Your task to perform on an android device: Open Chrome and go to the settings page Image 0: 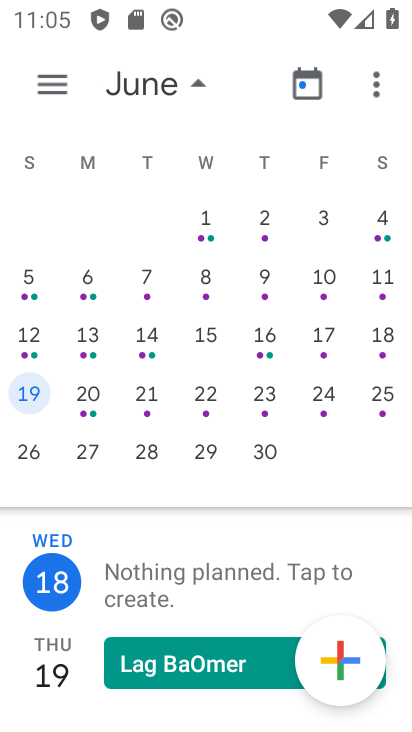
Step 0: press home button
Your task to perform on an android device: Open Chrome and go to the settings page Image 1: 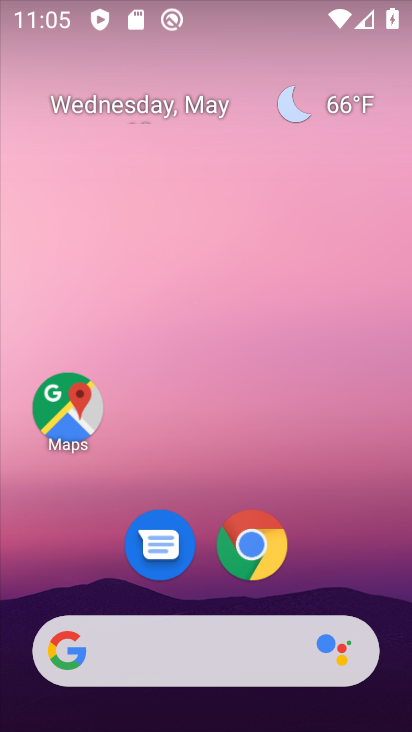
Step 1: click (255, 557)
Your task to perform on an android device: Open Chrome and go to the settings page Image 2: 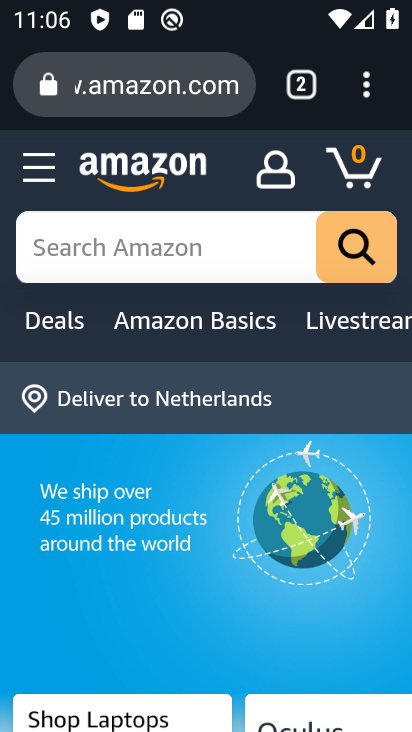
Step 2: click (369, 74)
Your task to perform on an android device: Open Chrome and go to the settings page Image 3: 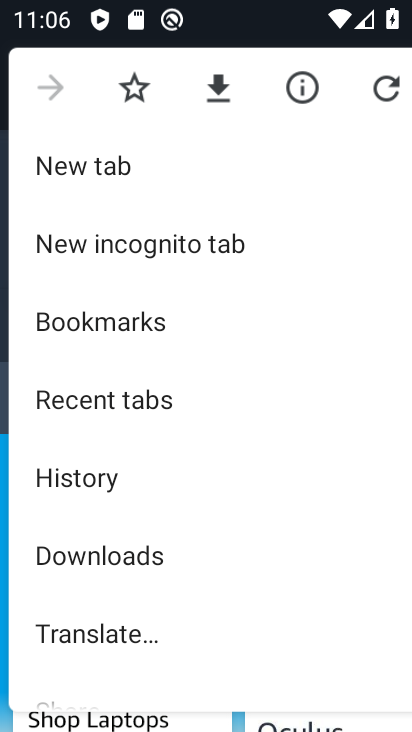
Step 3: drag from (191, 687) to (230, 181)
Your task to perform on an android device: Open Chrome and go to the settings page Image 4: 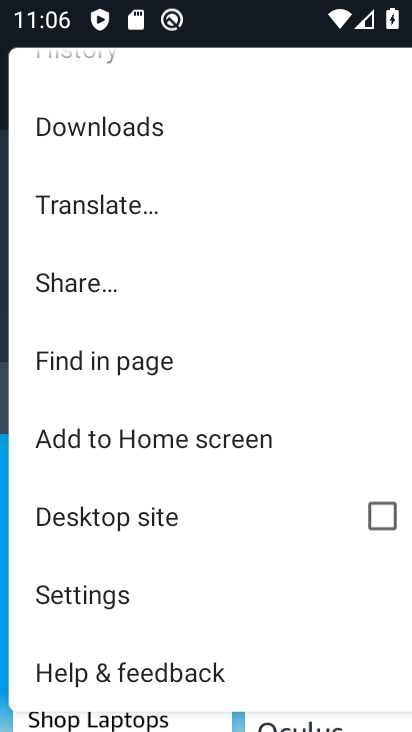
Step 4: click (100, 588)
Your task to perform on an android device: Open Chrome and go to the settings page Image 5: 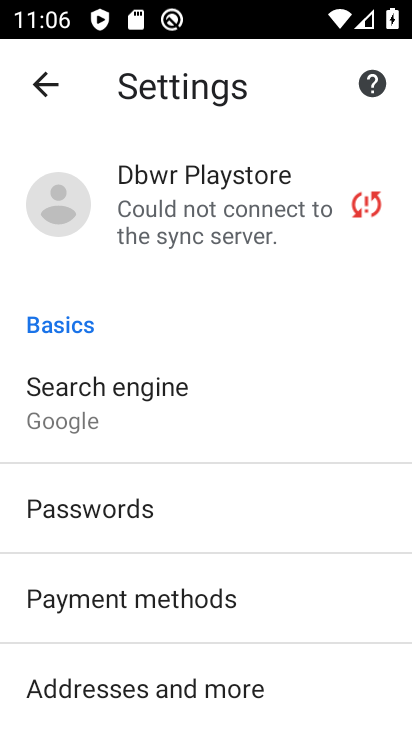
Step 5: task complete